Your task to perform on an android device: open chrome privacy settings Image 0: 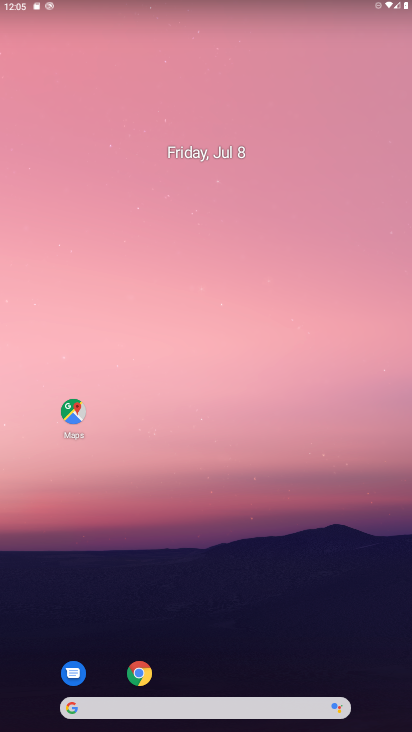
Step 0: drag from (387, 708) to (342, 237)
Your task to perform on an android device: open chrome privacy settings Image 1: 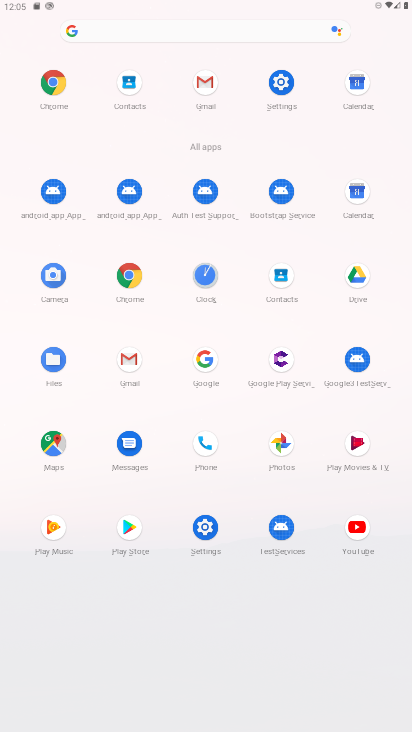
Step 1: click (280, 84)
Your task to perform on an android device: open chrome privacy settings Image 2: 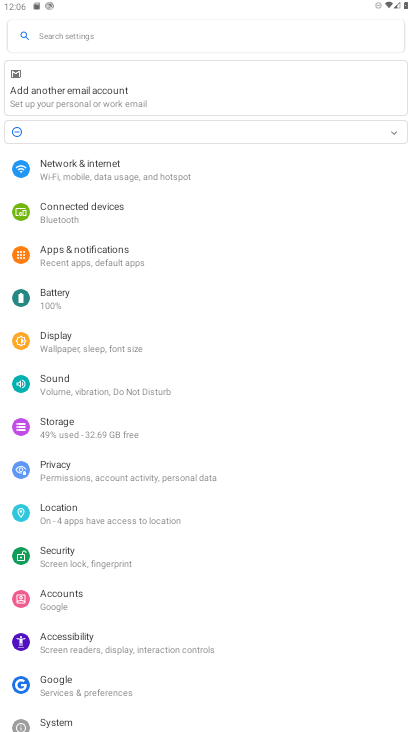
Step 2: click (53, 474)
Your task to perform on an android device: open chrome privacy settings Image 3: 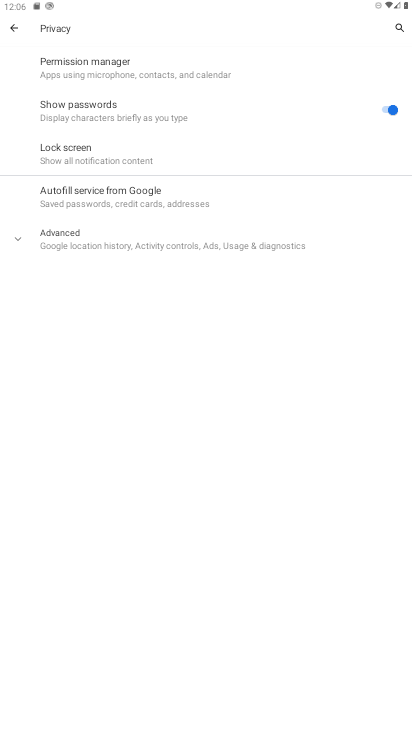
Step 3: task complete